Your task to perform on an android device: Open privacy settings Image 0: 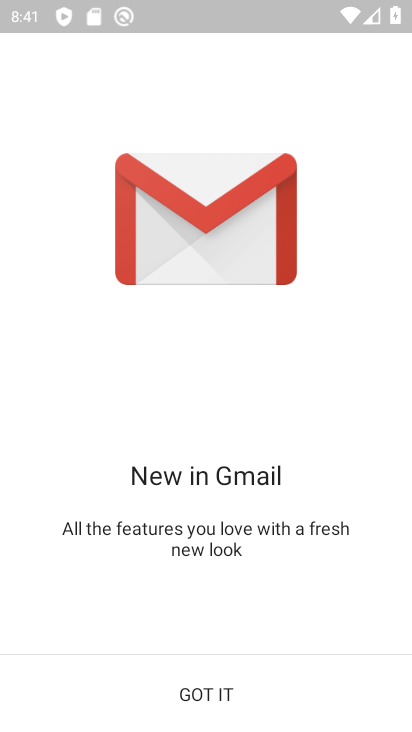
Step 0: click (207, 713)
Your task to perform on an android device: Open privacy settings Image 1: 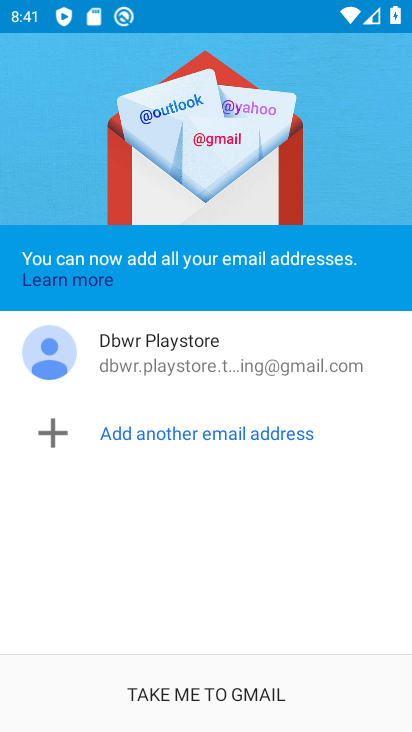
Step 1: click (215, 694)
Your task to perform on an android device: Open privacy settings Image 2: 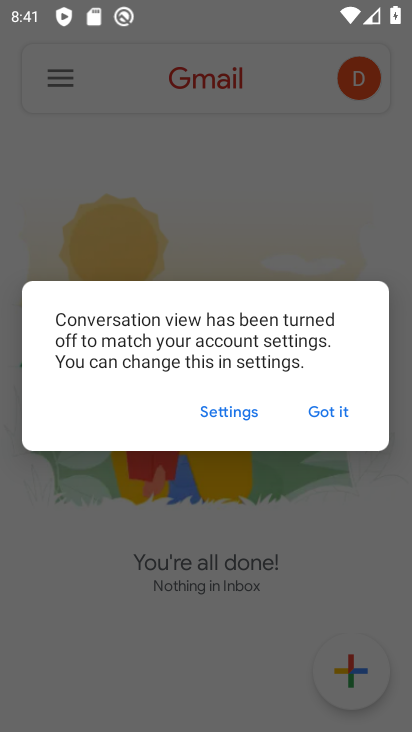
Step 2: click (320, 410)
Your task to perform on an android device: Open privacy settings Image 3: 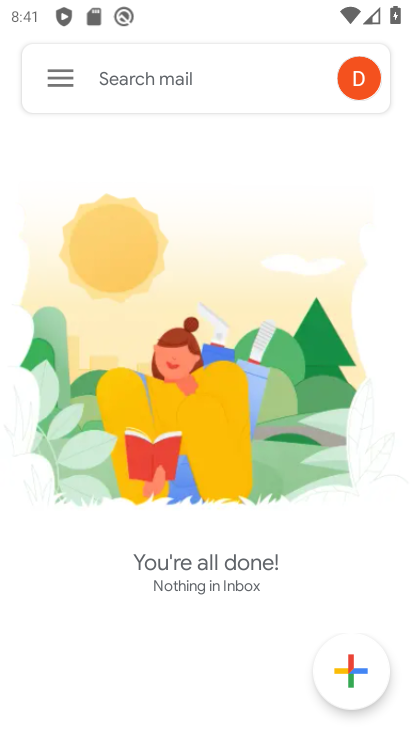
Step 3: click (72, 88)
Your task to perform on an android device: Open privacy settings Image 4: 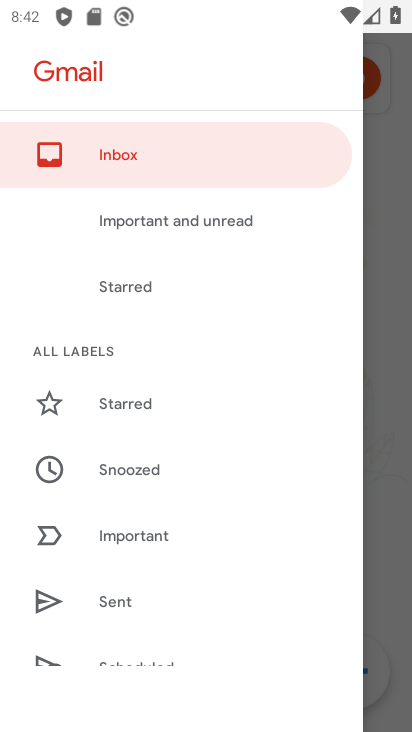
Step 4: press home button
Your task to perform on an android device: Open privacy settings Image 5: 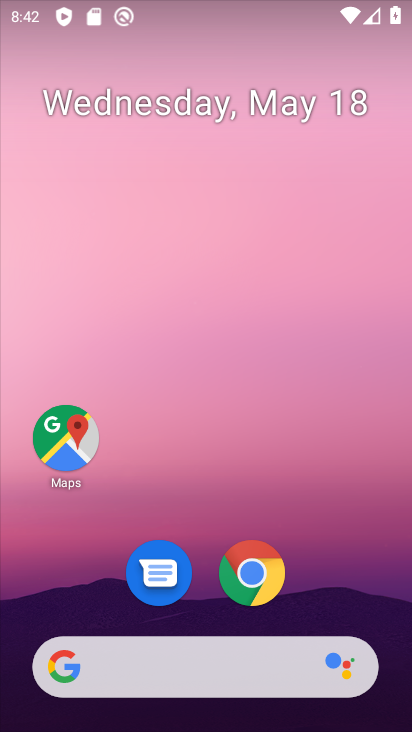
Step 5: drag from (219, 721) to (258, 139)
Your task to perform on an android device: Open privacy settings Image 6: 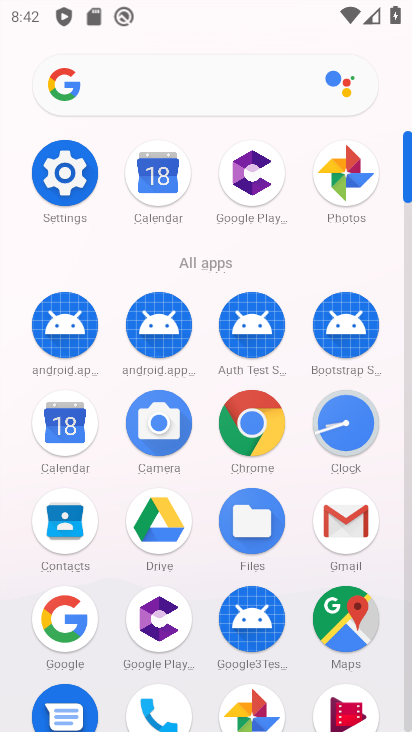
Step 6: click (88, 168)
Your task to perform on an android device: Open privacy settings Image 7: 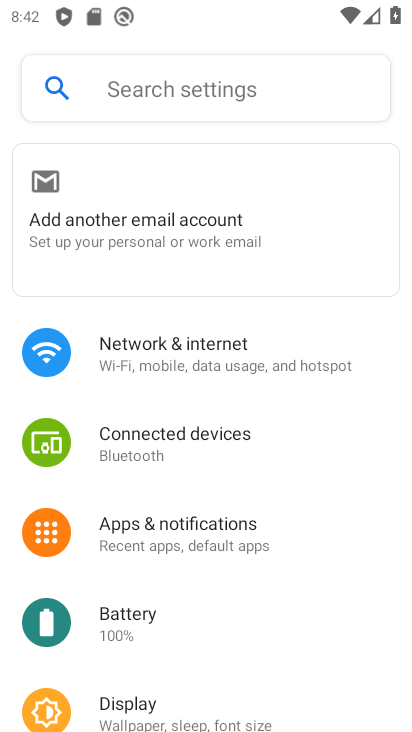
Step 7: drag from (272, 640) to (342, 248)
Your task to perform on an android device: Open privacy settings Image 8: 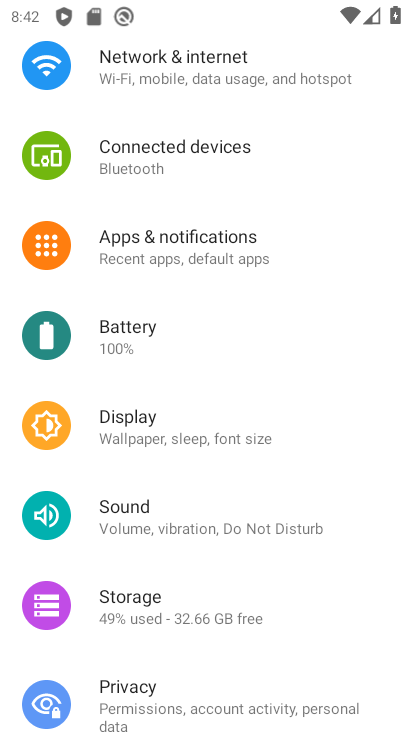
Step 8: click (251, 702)
Your task to perform on an android device: Open privacy settings Image 9: 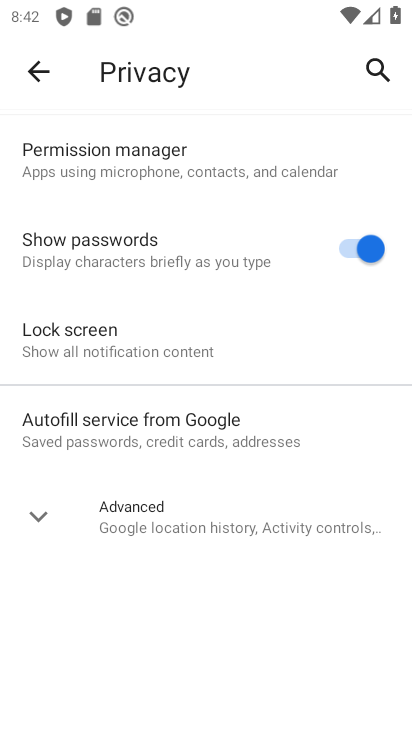
Step 9: task complete